Your task to perform on an android device: Clear all items from cart on amazon.com. Image 0: 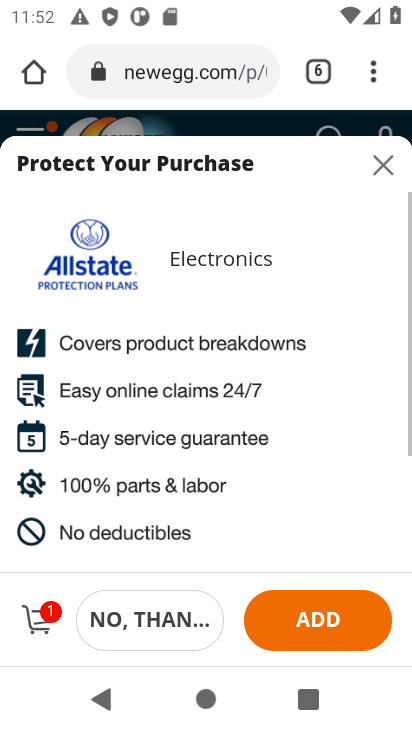
Step 0: click (191, 62)
Your task to perform on an android device: Clear all items from cart on amazon.com. Image 1: 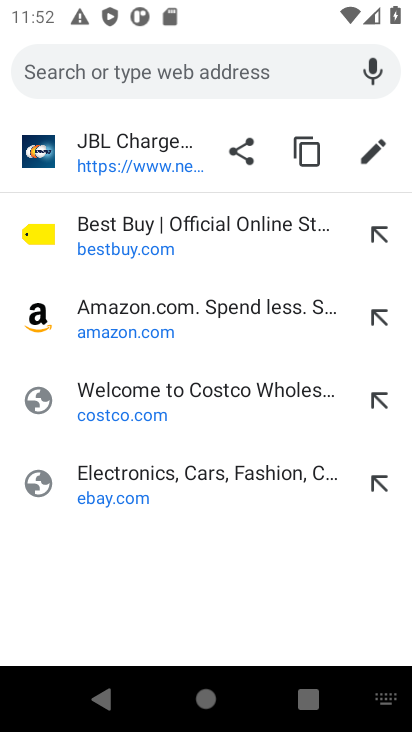
Step 1: click (152, 321)
Your task to perform on an android device: Clear all items from cart on amazon.com. Image 2: 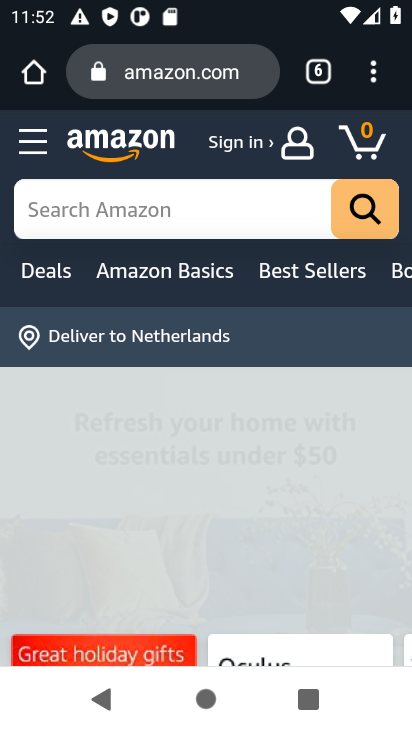
Step 2: click (369, 145)
Your task to perform on an android device: Clear all items from cart on amazon.com. Image 3: 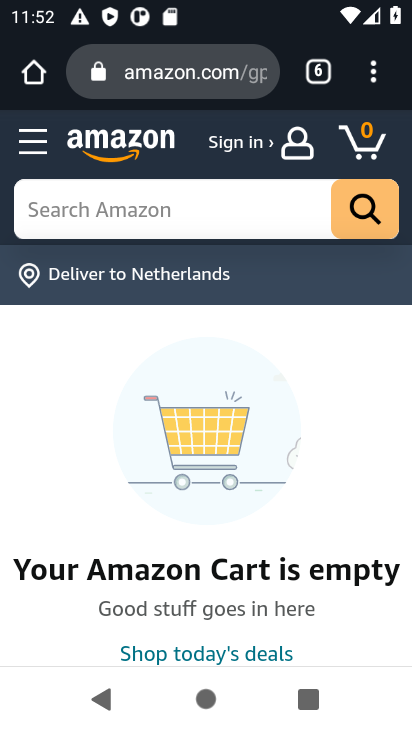
Step 3: task complete